Your task to perform on an android device: Open Chrome and go to settings Image 0: 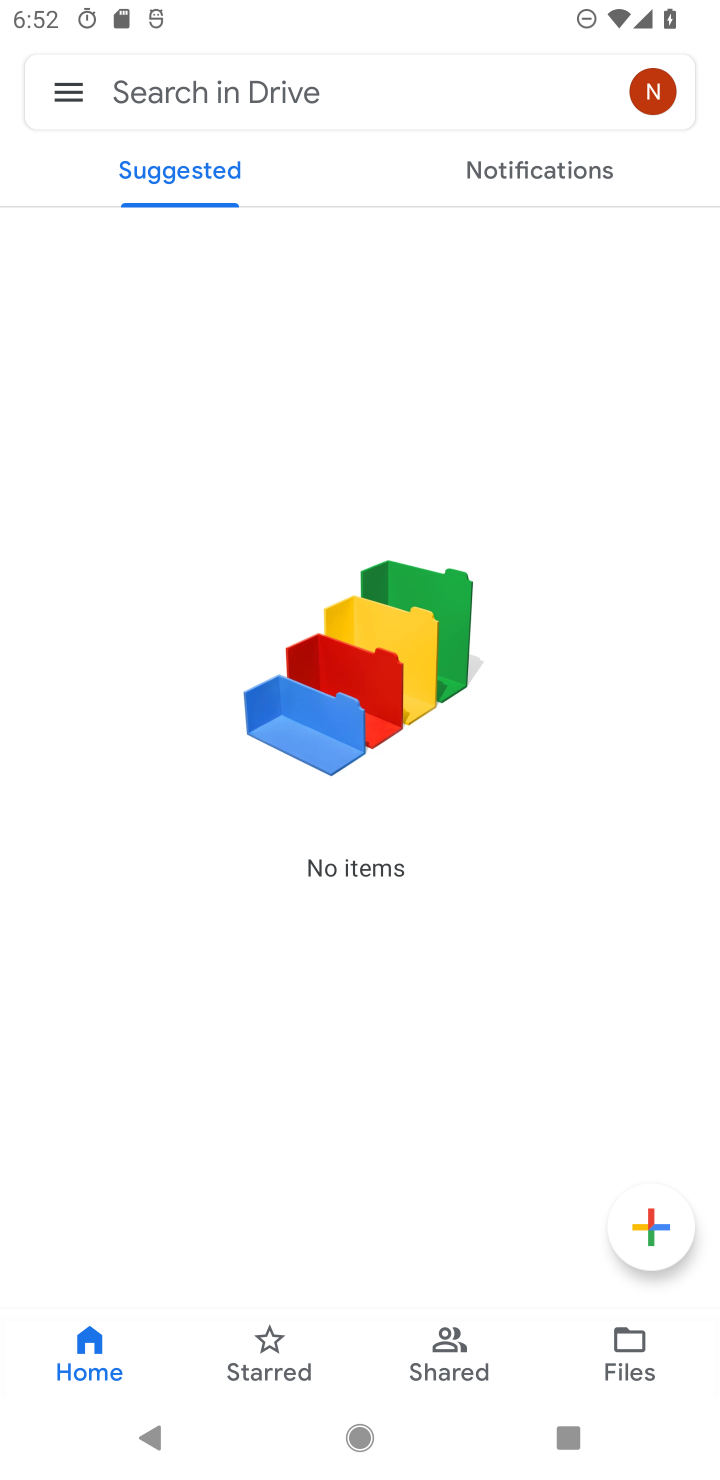
Step 0: drag from (357, 1136) to (388, 550)
Your task to perform on an android device: Open Chrome and go to settings Image 1: 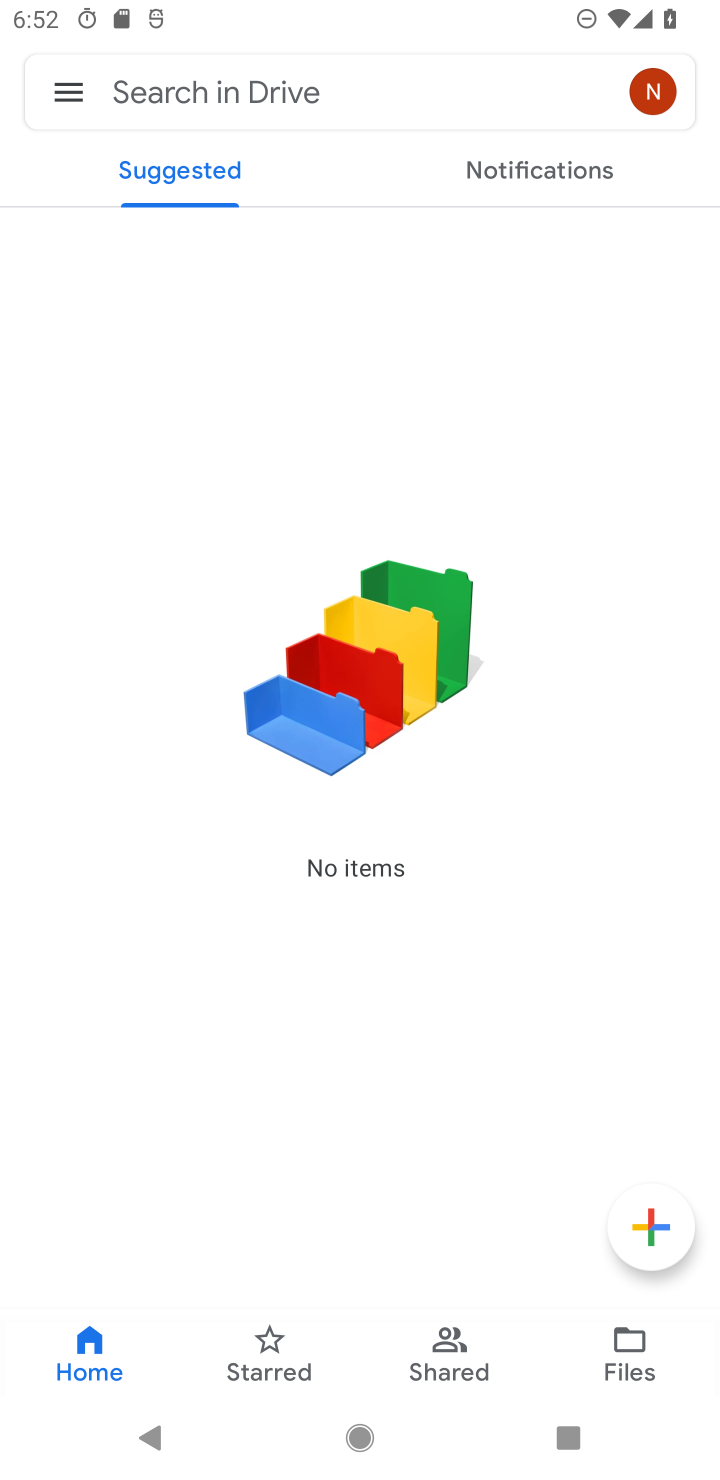
Step 1: press home button
Your task to perform on an android device: Open Chrome and go to settings Image 2: 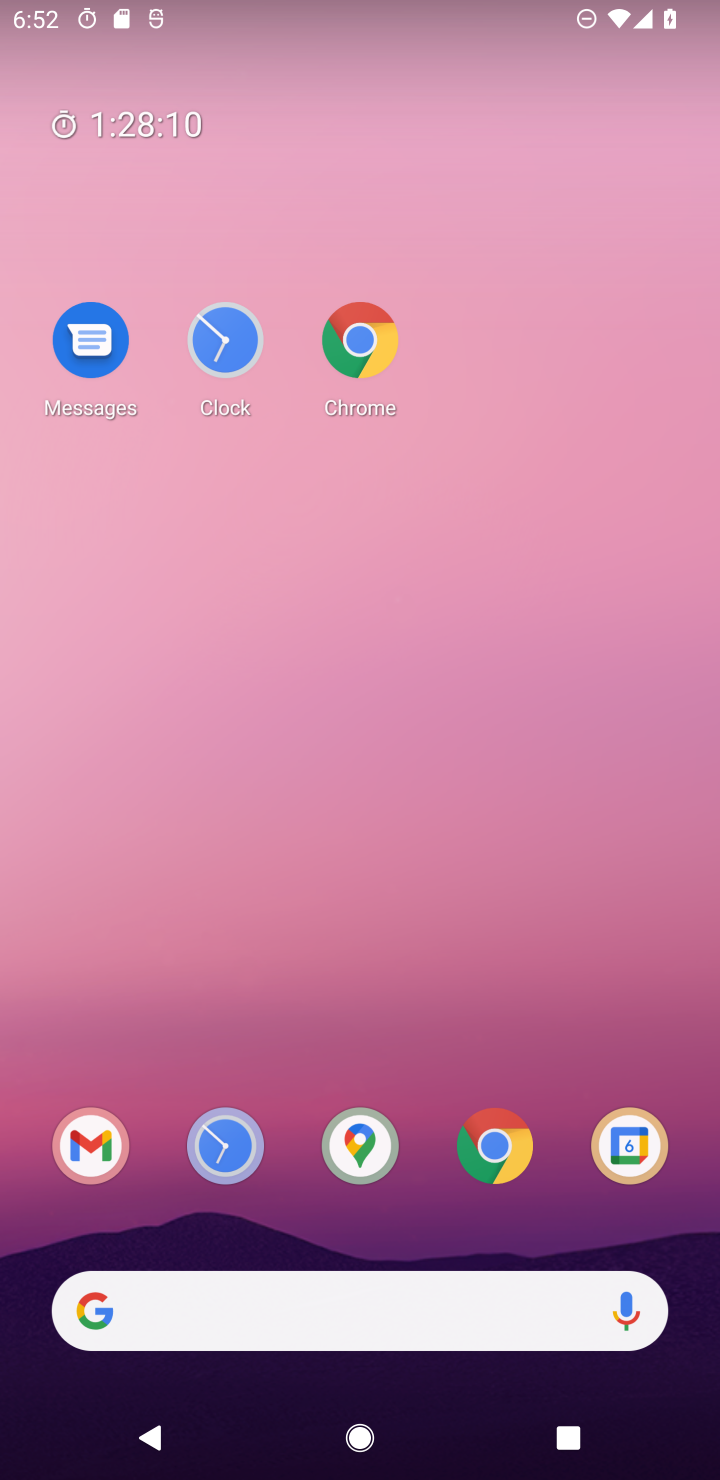
Step 2: drag from (475, 950) to (396, 329)
Your task to perform on an android device: Open Chrome and go to settings Image 3: 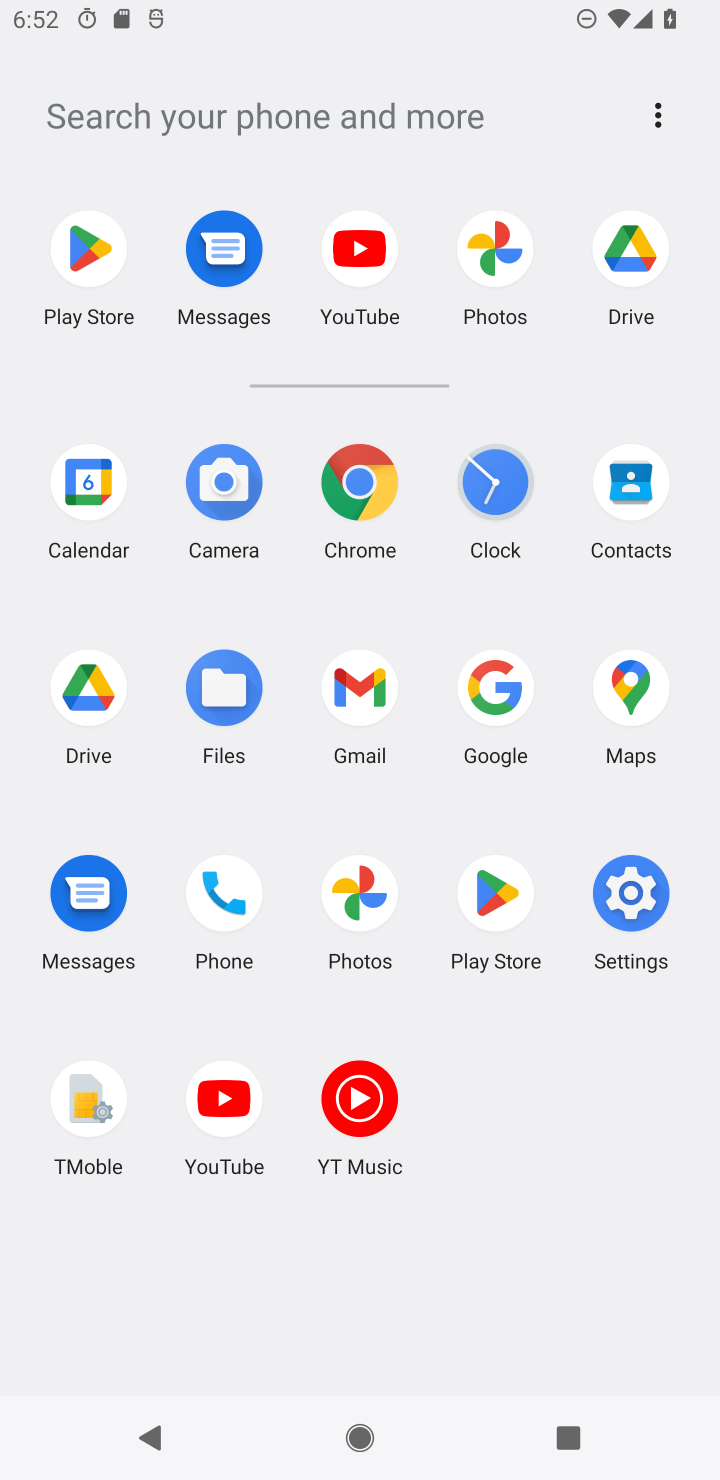
Step 3: click (642, 908)
Your task to perform on an android device: Open Chrome and go to settings Image 4: 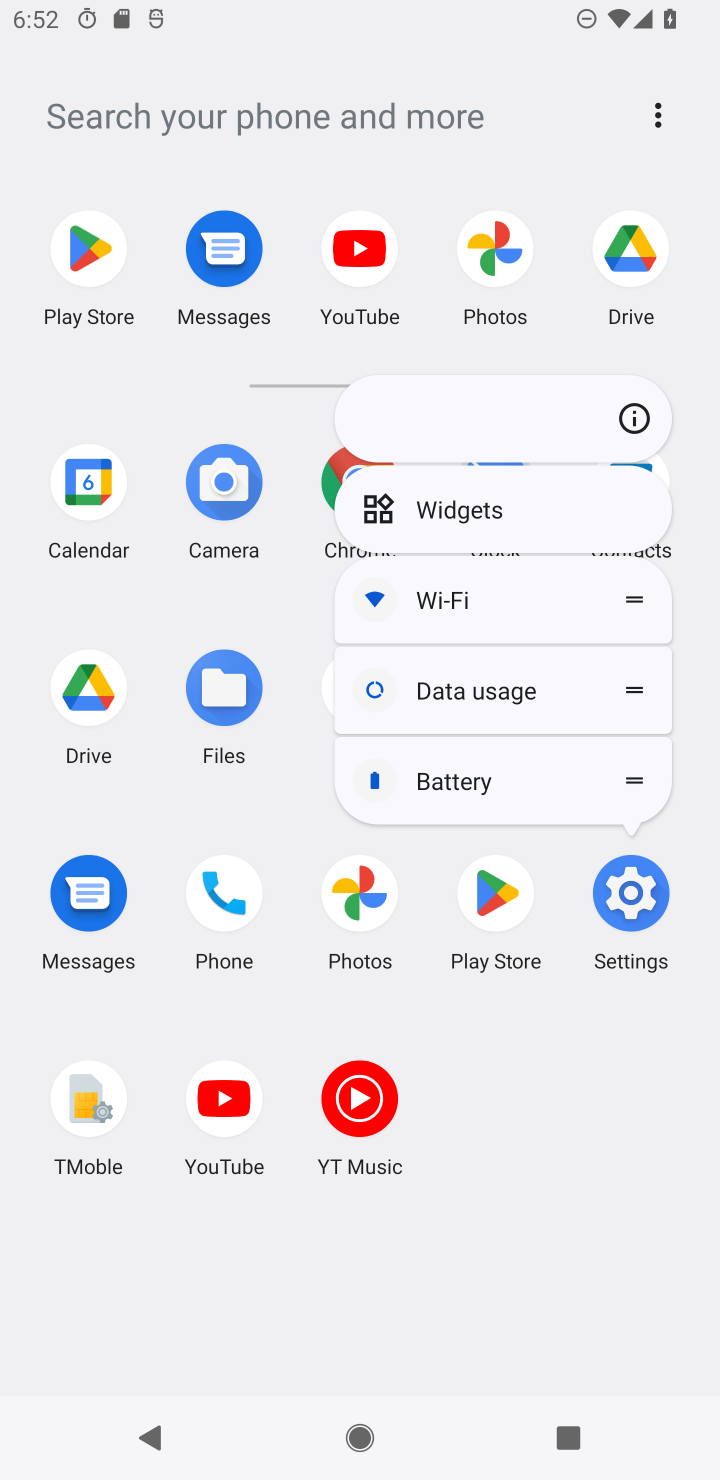
Step 4: click (635, 421)
Your task to perform on an android device: Open Chrome and go to settings Image 5: 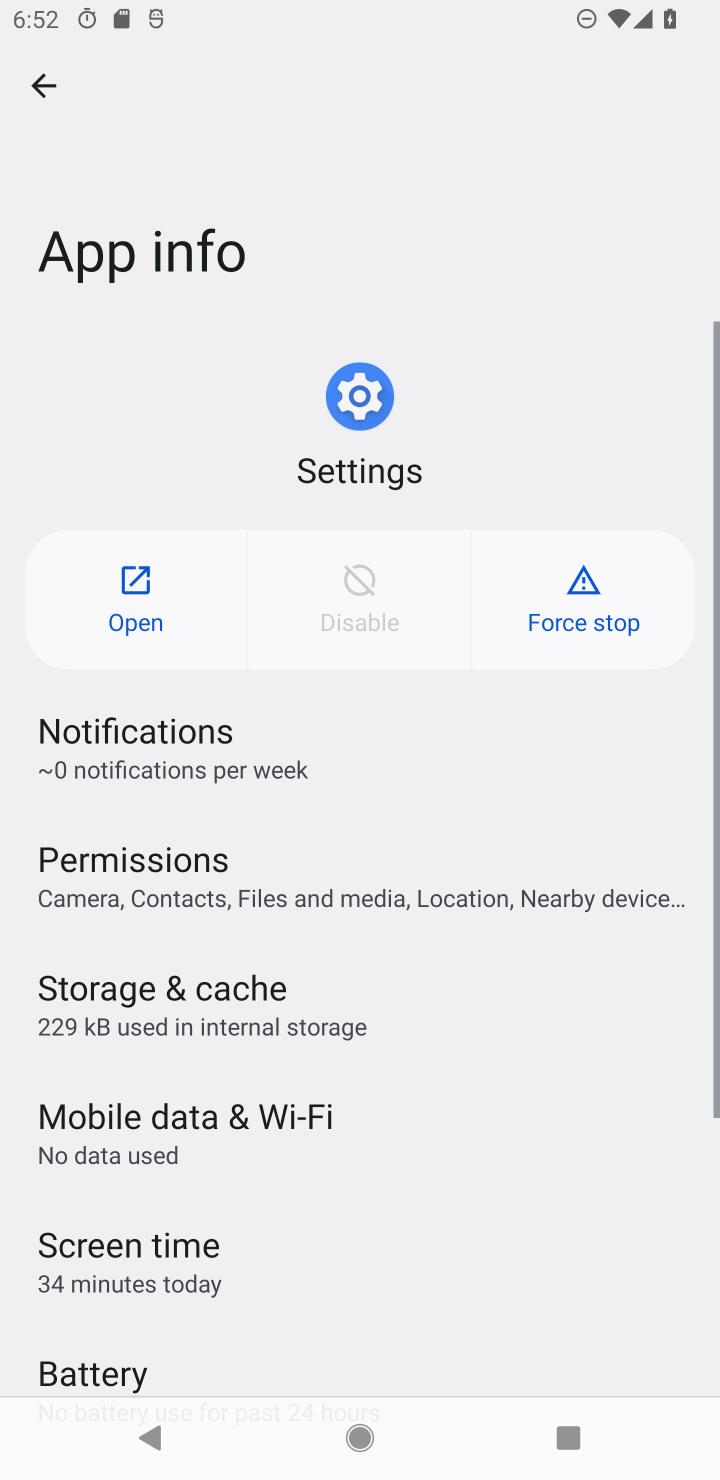
Step 5: press home button
Your task to perform on an android device: Open Chrome and go to settings Image 6: 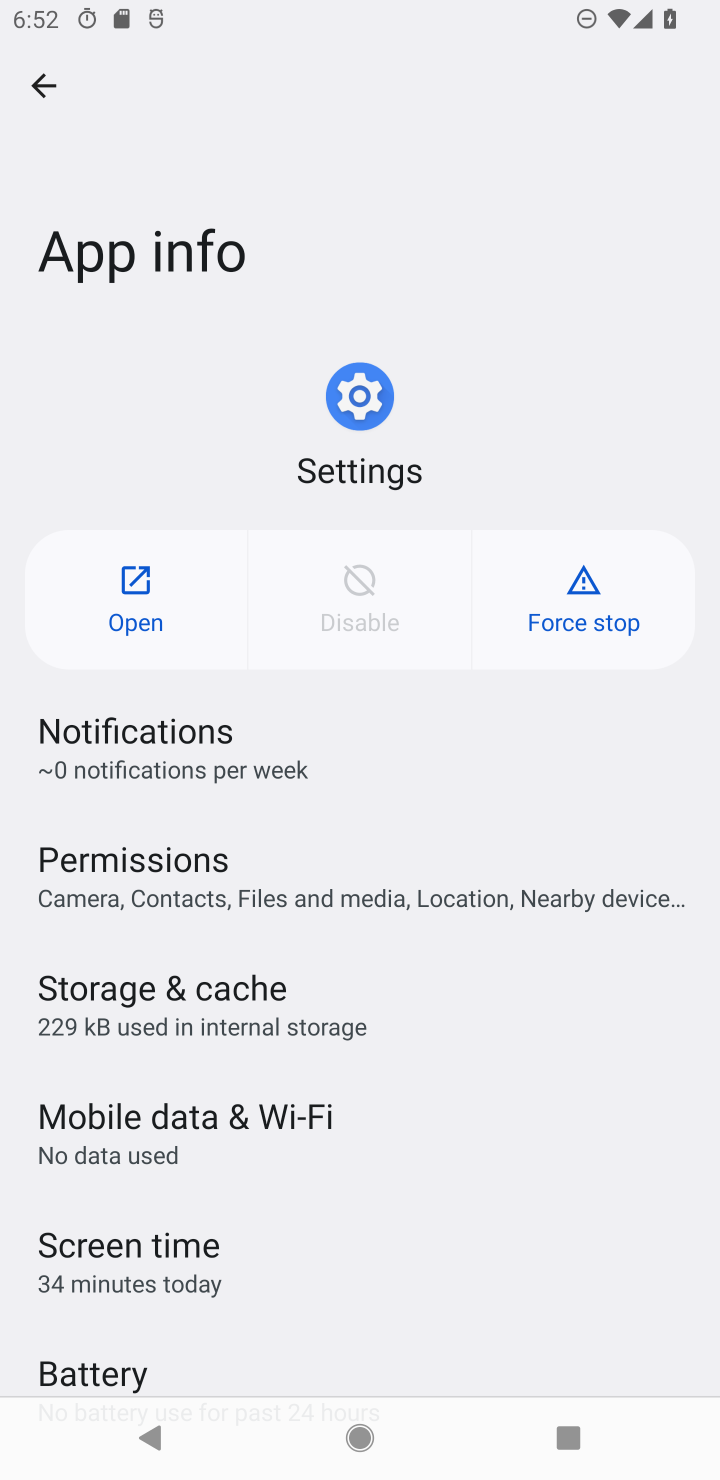
Step 6: press home button
Your task to perform on an android device: Open Chrome and go to settings Image 7: 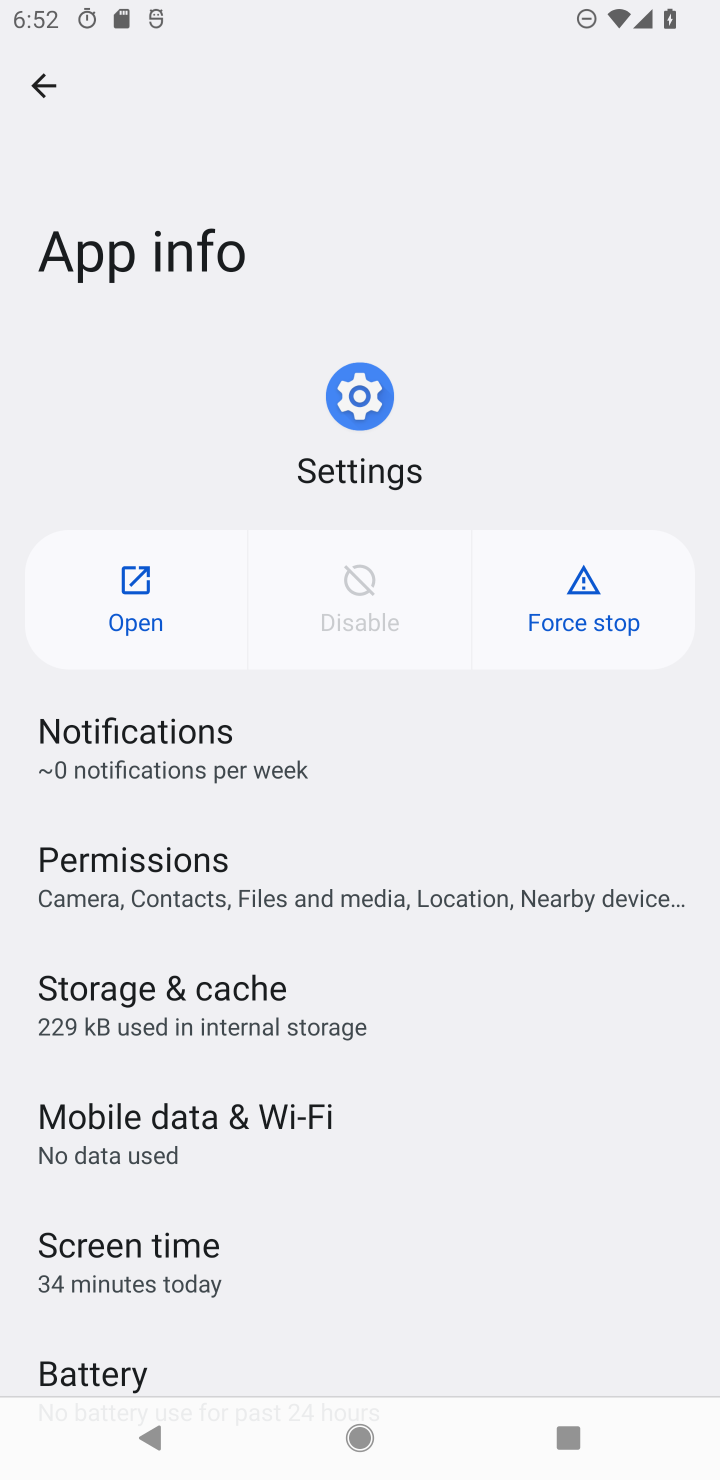
Step 7: drag from (372, 1174) to (394, 106)
Your task to perform on an android device: Open Chrome and go to settings Image 8: 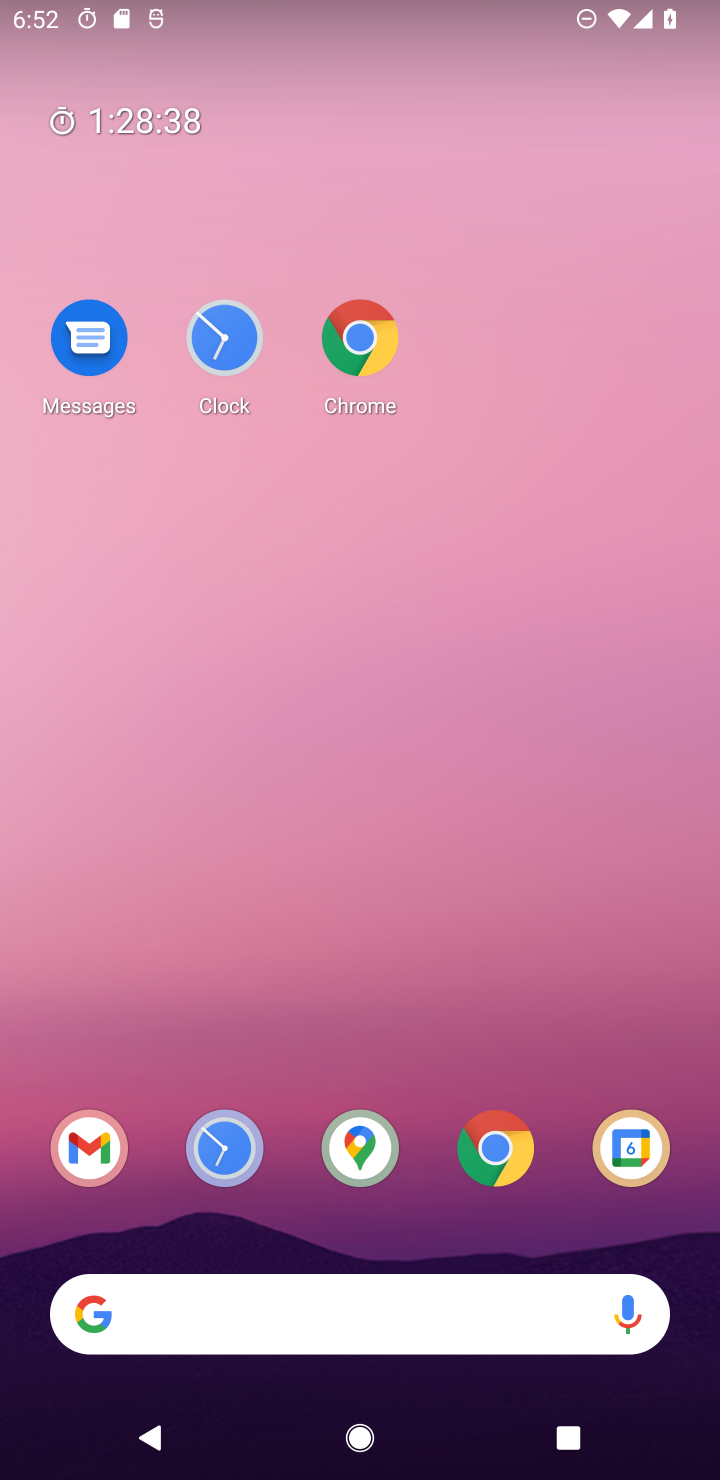
Step 8: click (357, 346)
Your task to perform on an android device: Open Chrome and go to settings Image 9: 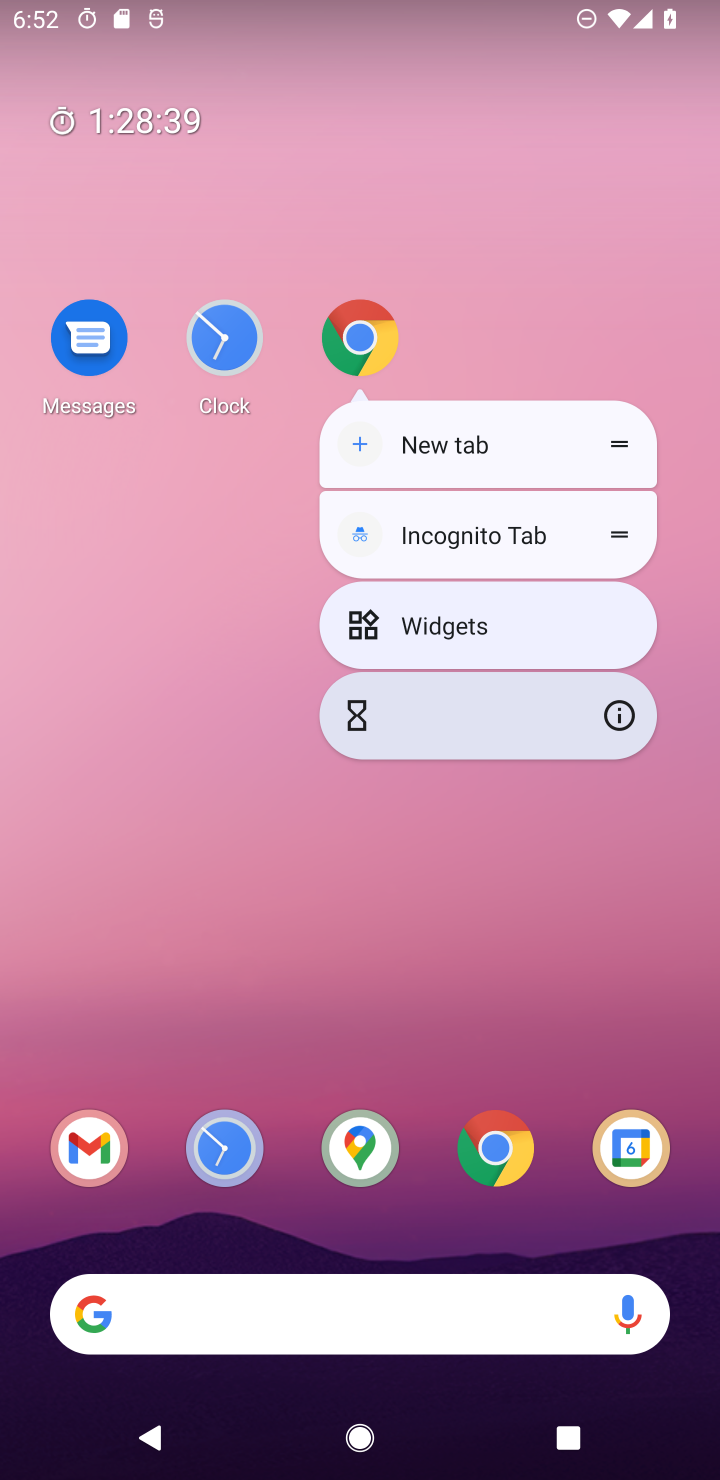
Step 9: click (359, 346)
Your task to perform on an android device: Open Chrome and go to settings Image 10: 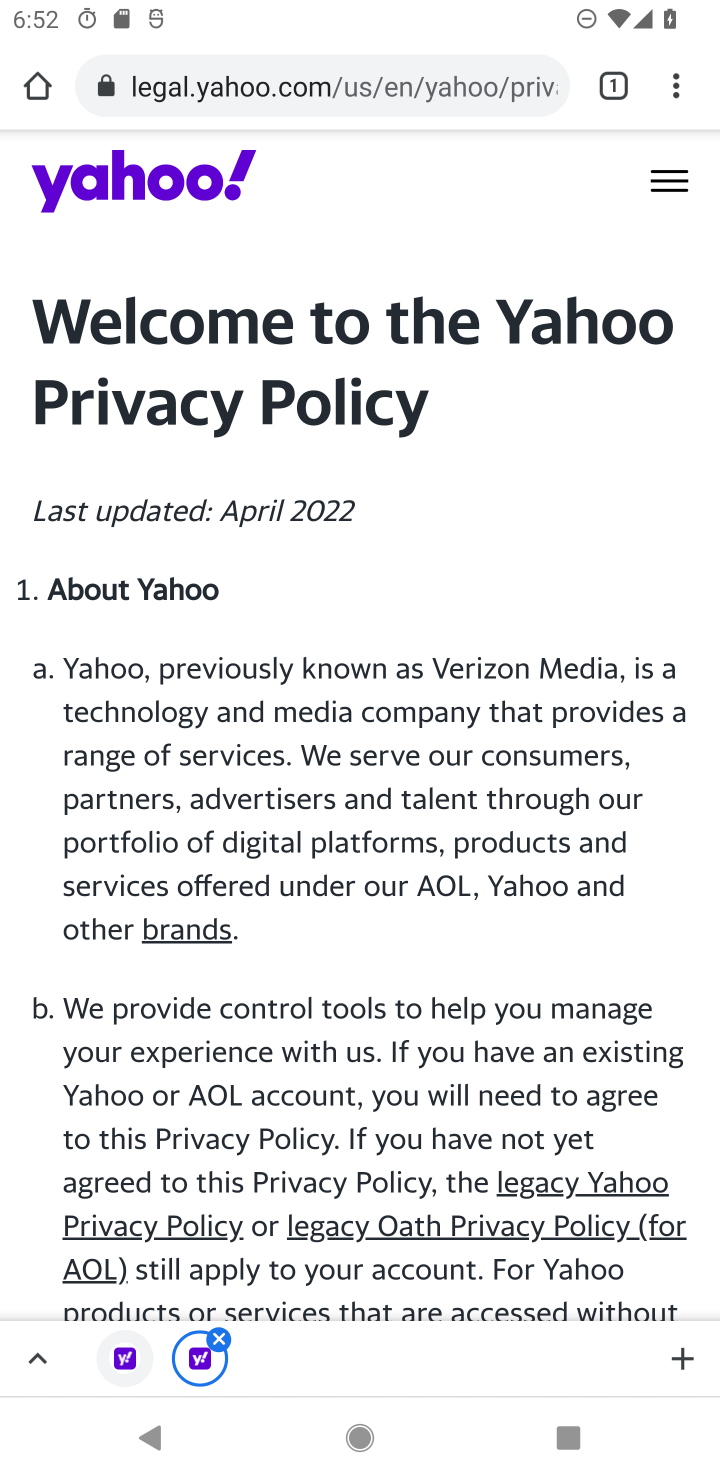
Step 10: task complete